Your task to perform on an android device: Is it going to rain tomorrow? Image 0: 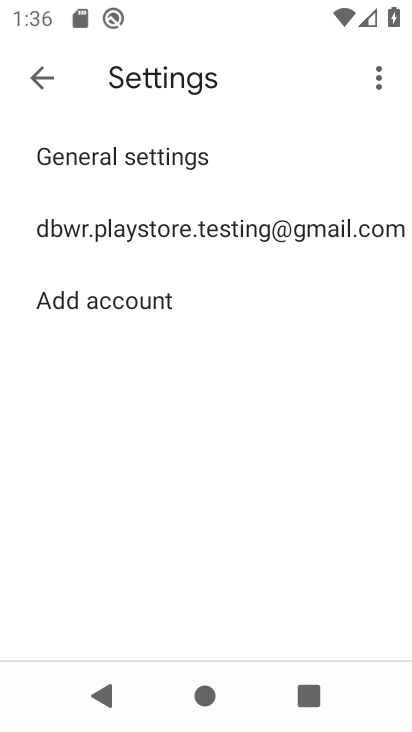
Step 0: press home button
Your task to perform on an android device: Is it going to rain tomorrow? Image 1: 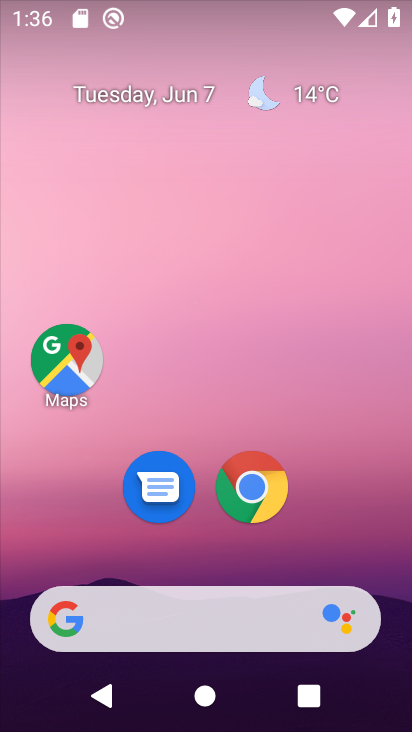
Step 1: drag from (212, 584) to (193, 10)
Your task to perform on an android device: Is it going to rain tomorrow? Image 2: 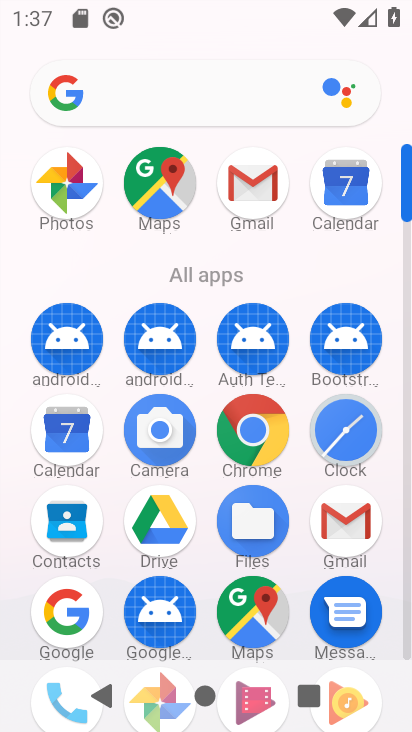
Step 2: click (53, 430)
Your task to perform on an android device: Is it going to rain tomorrow? Image 3: 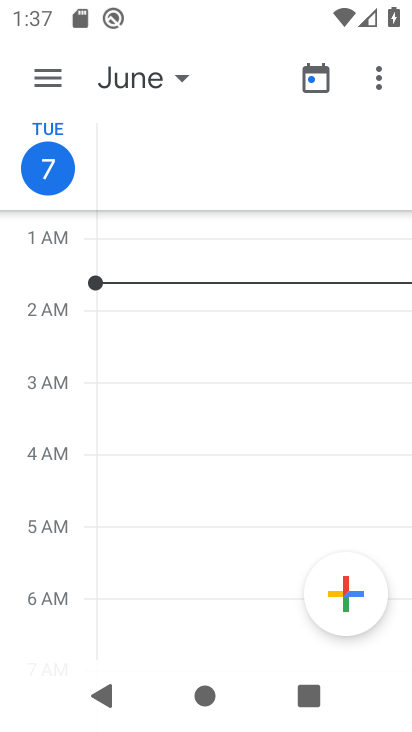
Step 3: click (56, 83)
Your task to perform on an android device: Is it going to rain tomorrow? Image 4: 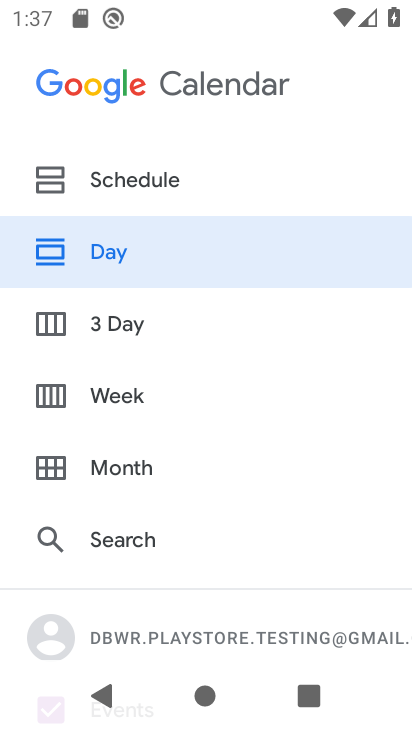
Step 4: click (132, 405)
Your task to perform on an android device: Is it going to rain tomorrow? Image 5: 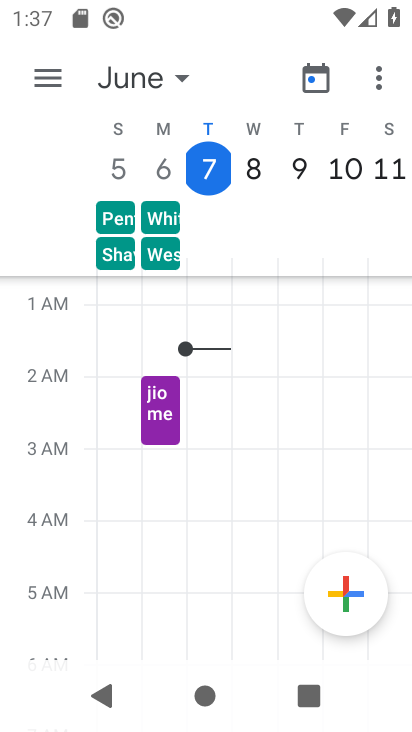
Step 5: click (233, 170)
Your task to perform on an android device: Is it going to rain tomorrow? Image 6: 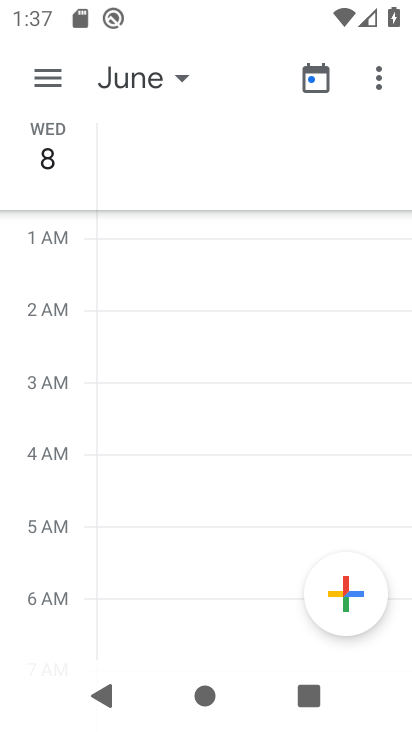
Step 6: task complete